Your task to perform on an android device: open app "Adobe Acrobat Reader: Edit PDF" (install if not already installed) and enter user name: "arthritis@inbox.com" and password: "scythes" Image 0: 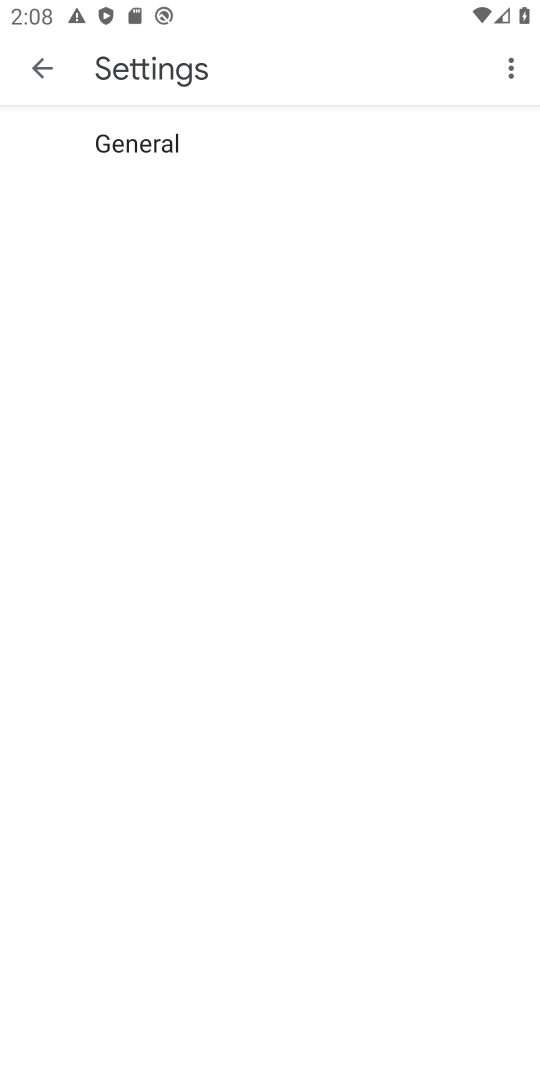
Step 0: press home button
Your task to perform on an android device: open app "Adobe Acrobat Reader: Edit PDF" (install if not already installed) and enter user name: "arthritis@inbox.com" and password: "scythes" Image 1: 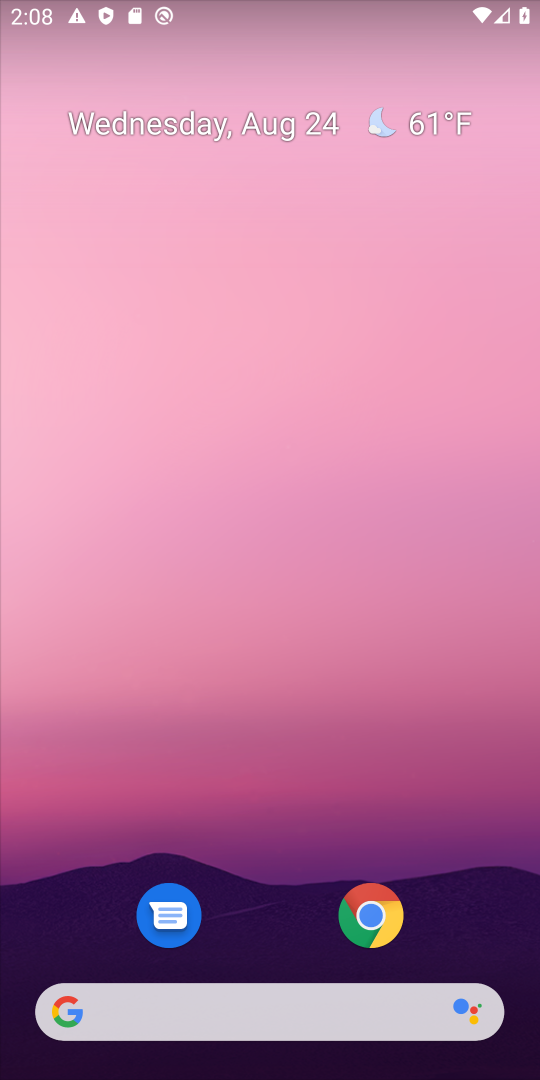
Step 1: drag from (238, 774) to (308, 172)
Your task to perform on an android device: open app "Adobe Acrobat Reader: Edit PDF" (install if not already installed) and enter user name: "arthritis@inbox.com" and password: "scythes" Image 2: 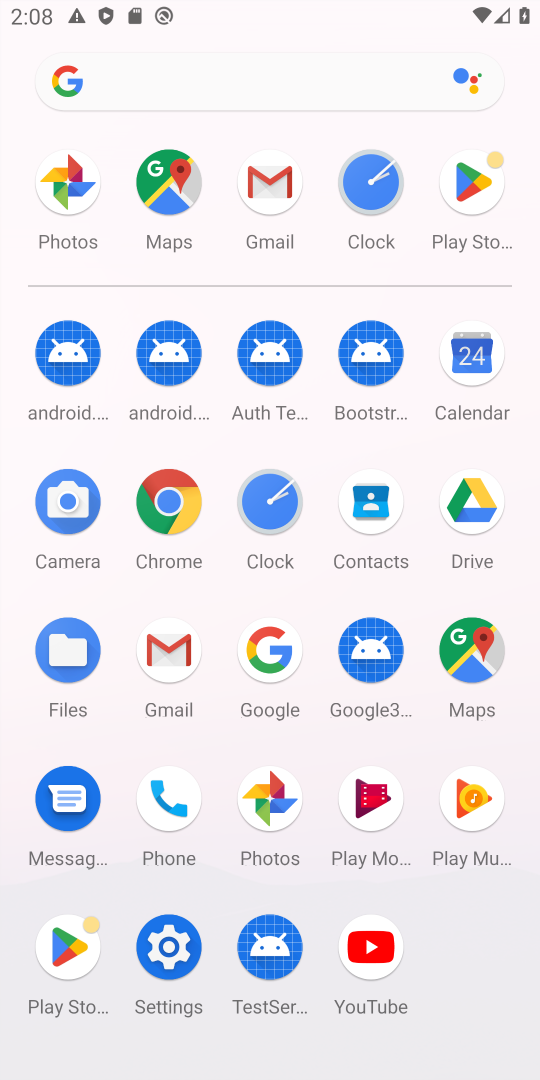
Step 2: click (443, 190)
Your task to perform on an android device: open app "Adobe Acrobat Reader: Edit PDF" (install if not already installed) and enter user name: "arthritis@inbox.com" and password: "scythes" Image 3: 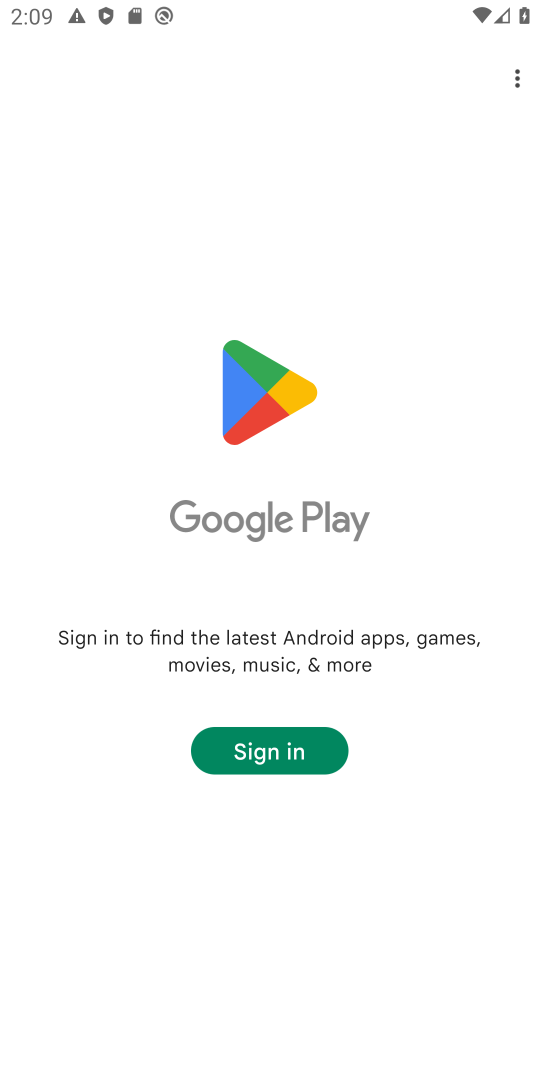
Step 3: task complete